Your task to perform on an android device: Is it going to rain today? Image 0: 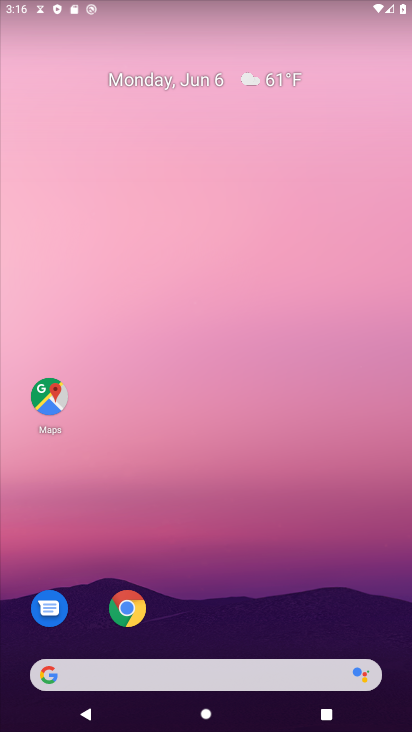
Step 0: click (182, 678)
Your task to perform on an android device: Is it going to rain today? Image 1: 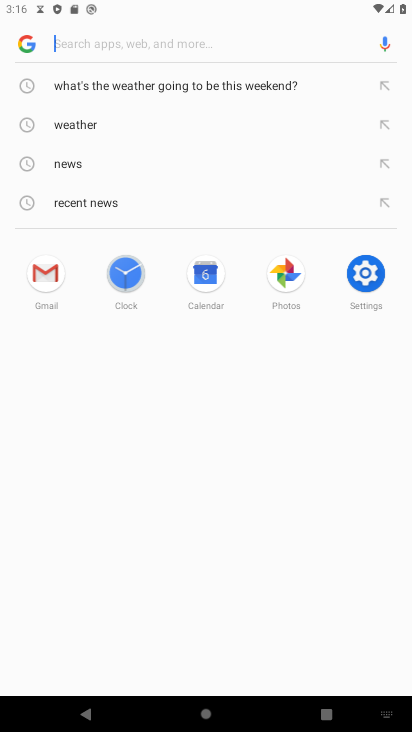
Step 1: type "is it going to rain today"
Your task to perform on an android device: Is it going to rain today? Image 2: 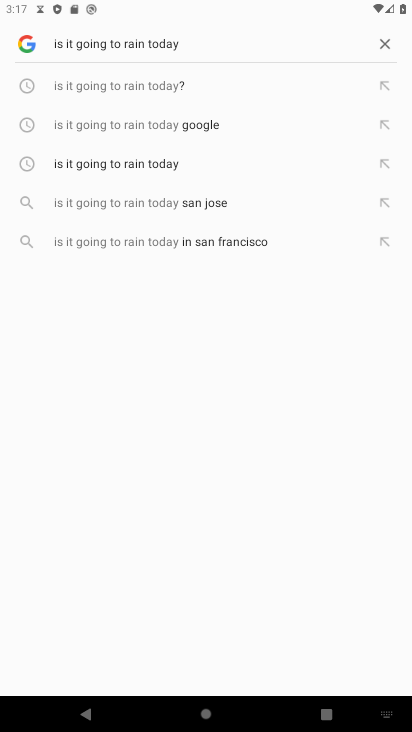
Step 2: click (150, 83)
Your task to perform on an android device: Is it going to rain today? Image 3: 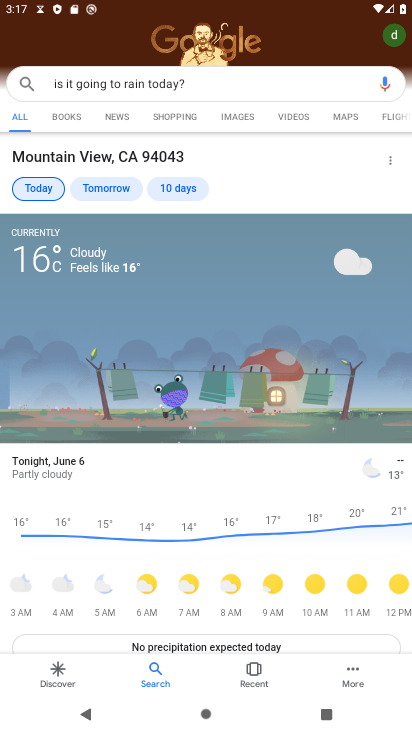
Step 3: task complete